Your task to perform on an android device: move a message to another label in the gmail app Image 0: 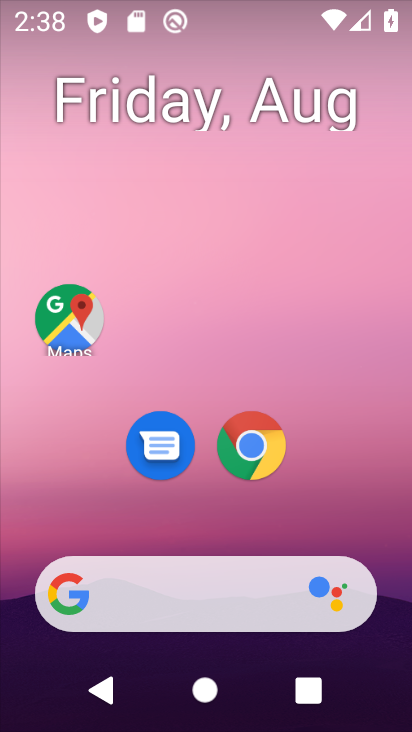
Step 0: drag from (344, 441) to (340, 68)
Your task to perform on an android device: move a message to another label in the gmail app Image 1: 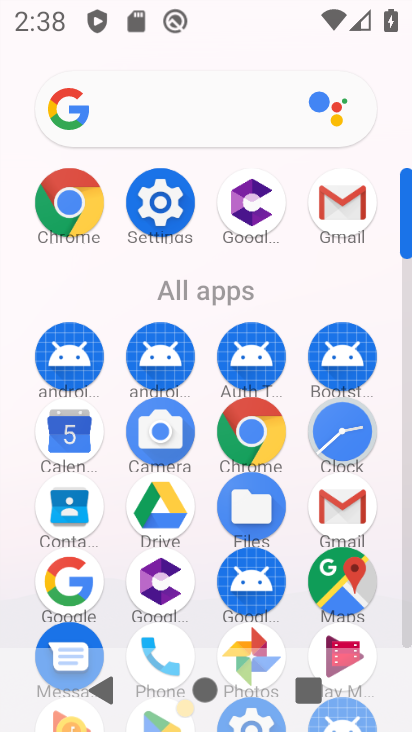
Step 1: click (350, 493)
Your task to perform on an android device: move a message to another label in the gmail app Image 2: 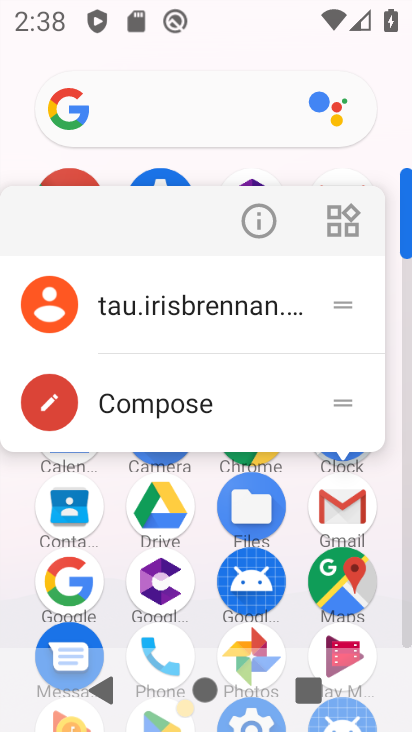
Step 2: click (348, 503)
Your task to perform on an android device: move a message to another label in the gmail app Image 3: 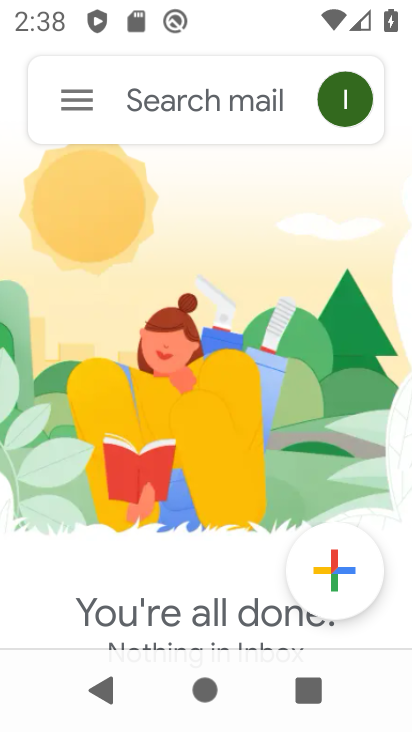
Step 3: click (85, 91)
Your task to perform on an android device: move a message to another label in the gmail app Image 4: 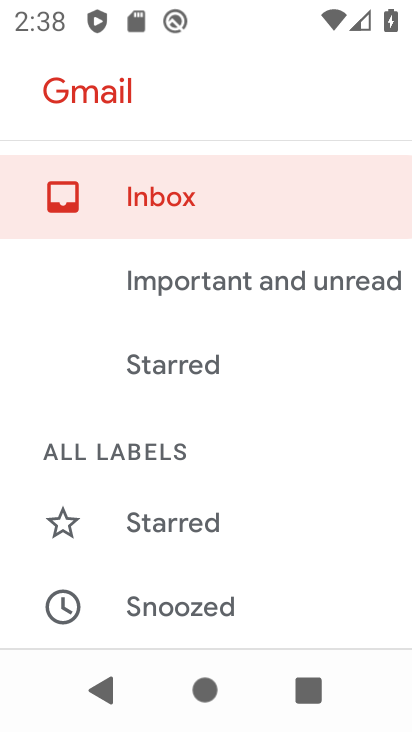
Step 4: drag from (237, 580) to (279, 161)
Your task to perform on an android device: move a message to another label in the gmail app Image 5: 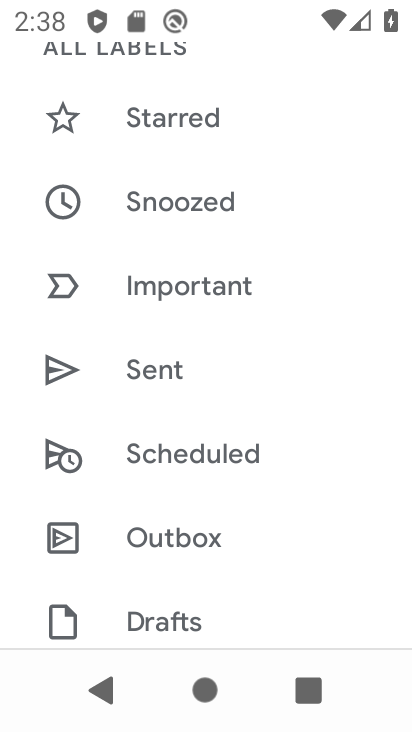
Step 5: drag from (249, 569) to (272, 211)
Your task to perform on an android device: move a message to another label in the gmail app Image 6: 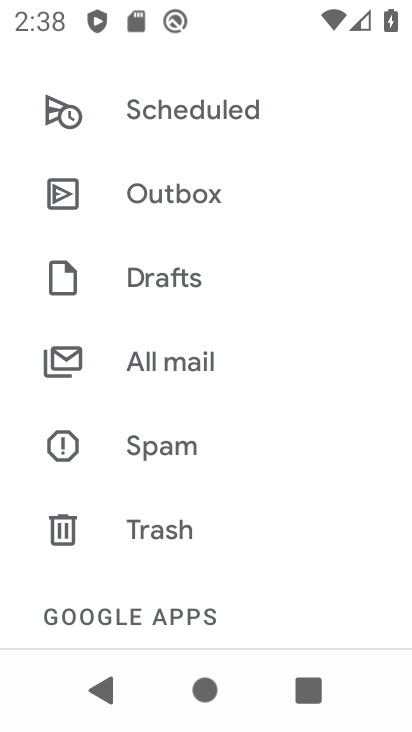
Step 6: click (196, 362)
Your task to perform on an android device: move a message to another label in the gmail app Image 7: 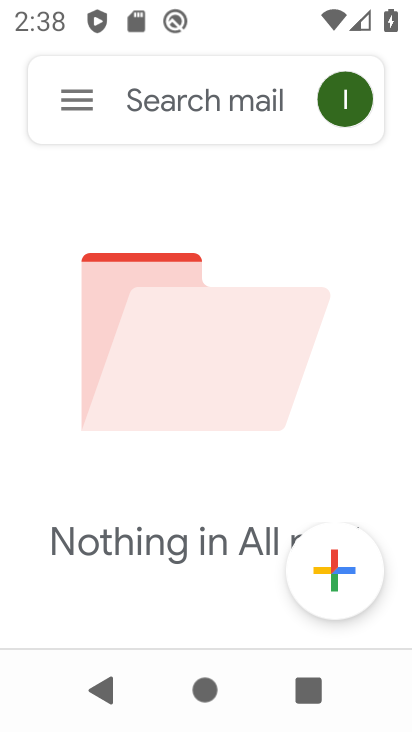
Step 7: task complete